Your task to perform on an android device: Open Chrome and go to settings Image 0: 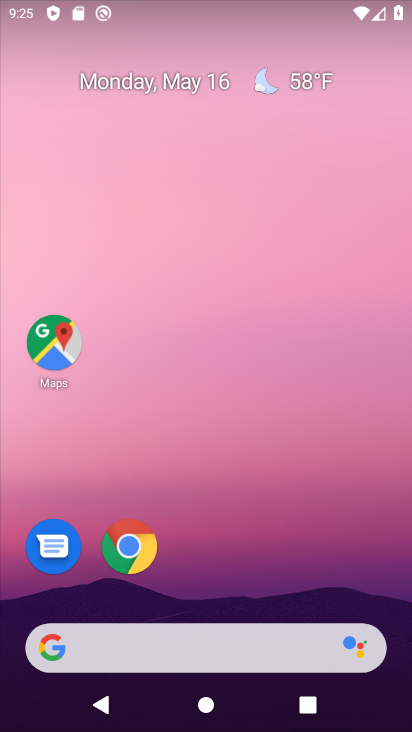
Step 0: click (129, 548)
Your task to perform on an android device: Open Chrome and go to settings Image 1: 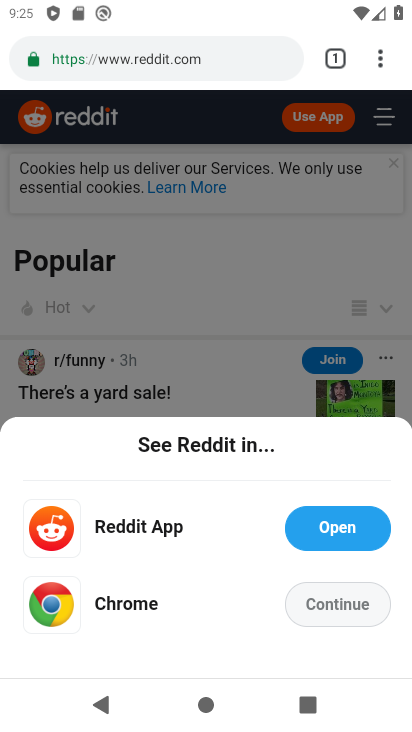
Step 1: click (379, 59)
Your task to perform on an android device: Open Chrome and go to settings Image 2: 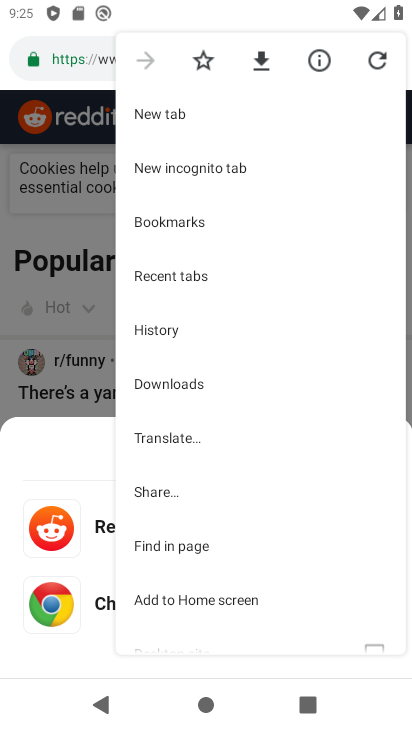
Step 2: drag from (159, 465) to (201, 392)
Your task to perform on an android device: Open Chrome and go to settings Image 3: 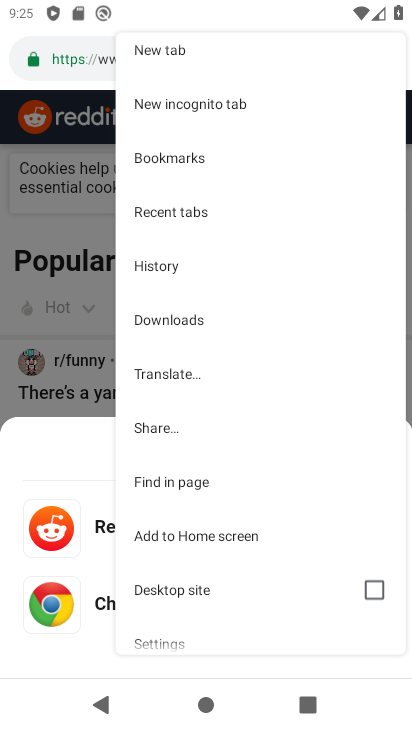
Step 3: drag from (176, 501) to (228, 422)
Your task to perform on an android device: Open Chrome and go to settings Image 4: 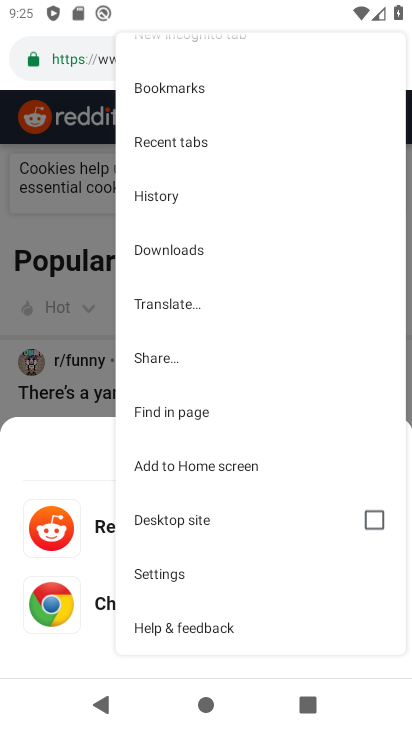
Step 4: drag from (167, 549) to (249, 451)
Your task to perform on an android device: Open Chrome and go to settings Image 5: 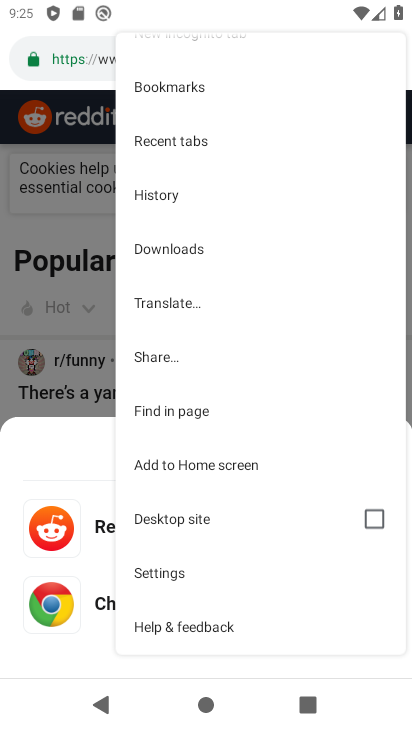
Step 5: click (165, 577)
Your task to perform on an android device: Open Chrome and go to settings Image 6: 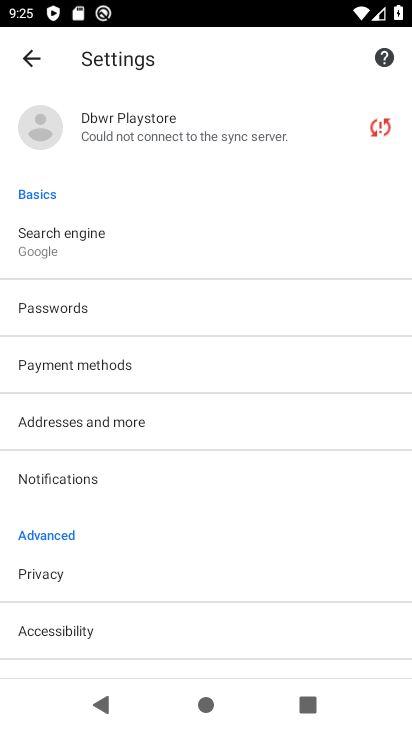
Step 6: task complete